Your task to perform on an android device: Open Google Maps Image 0: 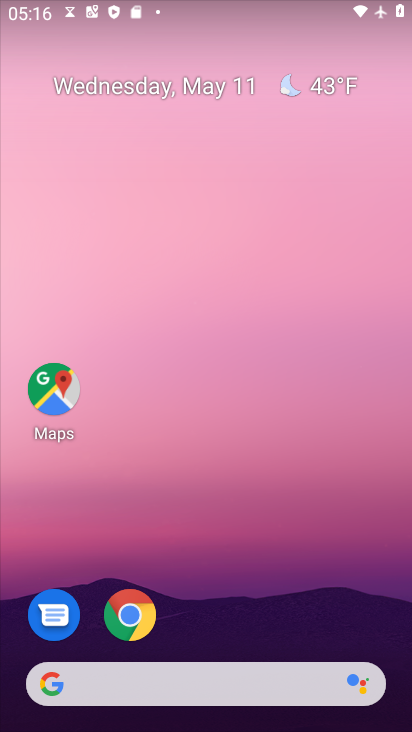
Step 0: drag from (273, 575) to (266, 119)
Your task to perform on an android device: Open Google Maps Image 1: 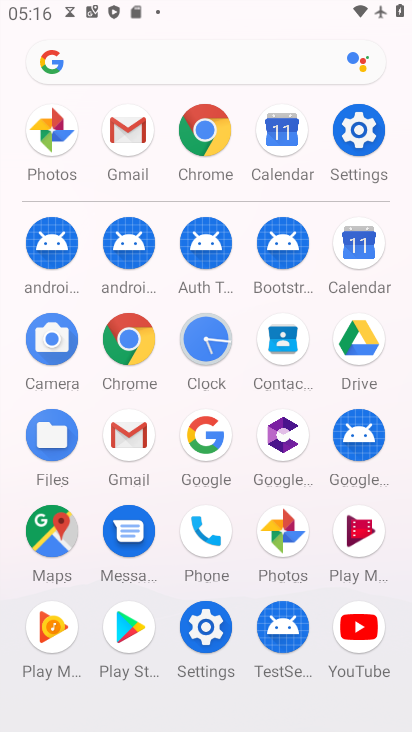
Step 1: click (62, 532)
Your task to perform on an android device: Open Google Maps Image 2: 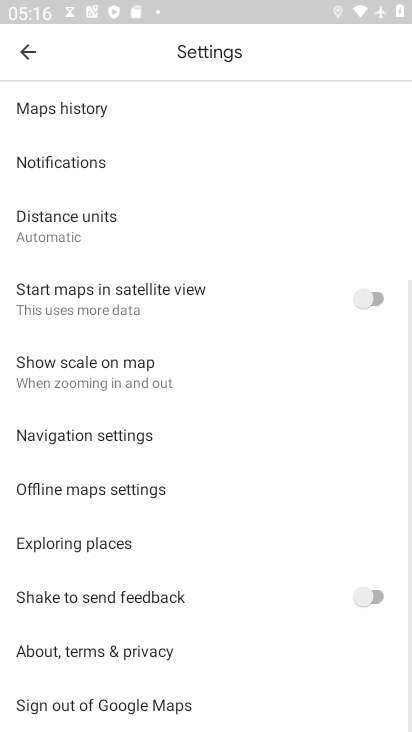
Step 2: click (22, 49)
Your task to perform on an android device: Open Google Maps Image 3: 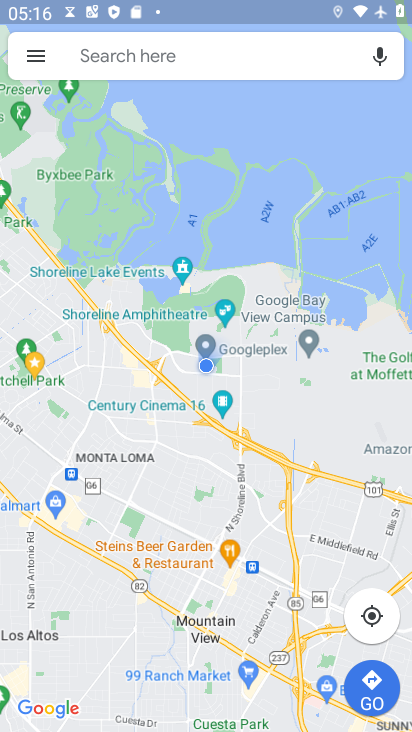
Step 3: task complete